Your task to perform on an android device: Go to Reddit.com Image 0: 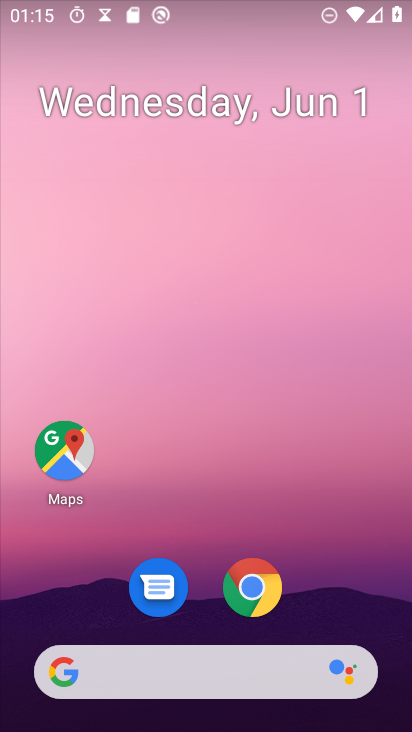
Step 0: click (251, 585)
Your task to perform on an android device: Go to Reddit.com Image 1: 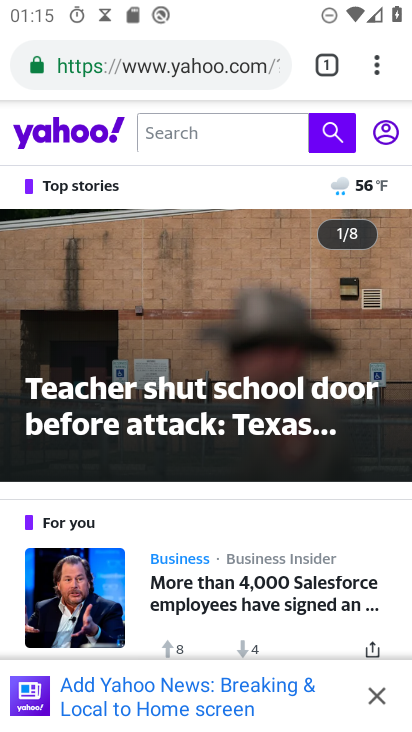
Step 1: click (188, 55)
Your task to perform on an android device: Go to Reddit.com Image 2: 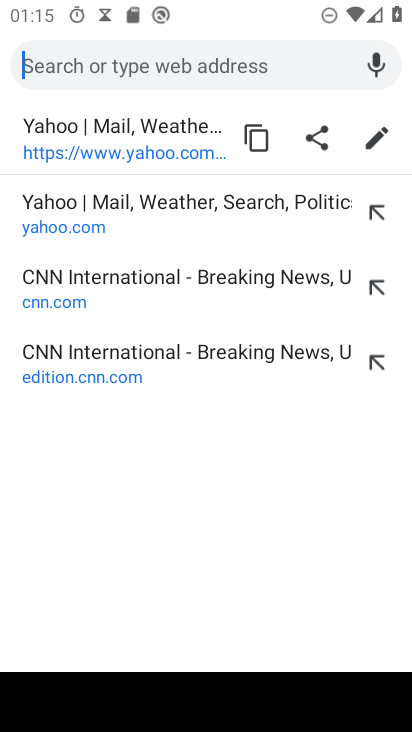
Step 2: type "Reddit.com"
Your task to perform on an android device: Go to Reddit.com Image 3: 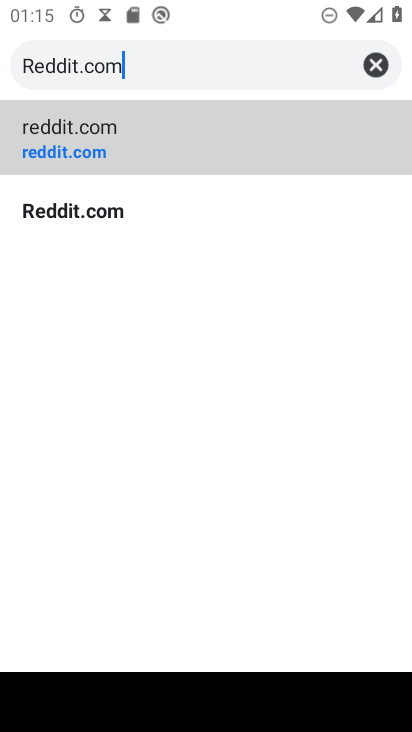
Step 3: click (155, 131)
Your task to perform on an android device: Go to Reddit.com Image 4: 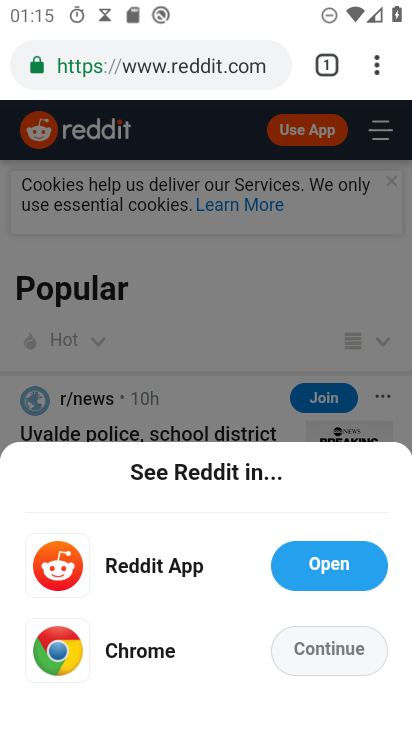
Step 4: task complete